Your task to perform on an android device: Search for sushi restaurants on Maps Image 0: 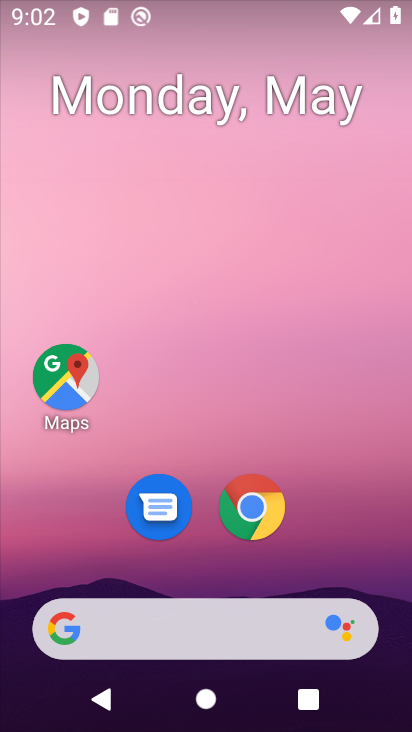
Step 0: drag from (211, 569) to (297, 2)
Your task to perform on an android device: Search for sushi restaurants on Maps Image 1: 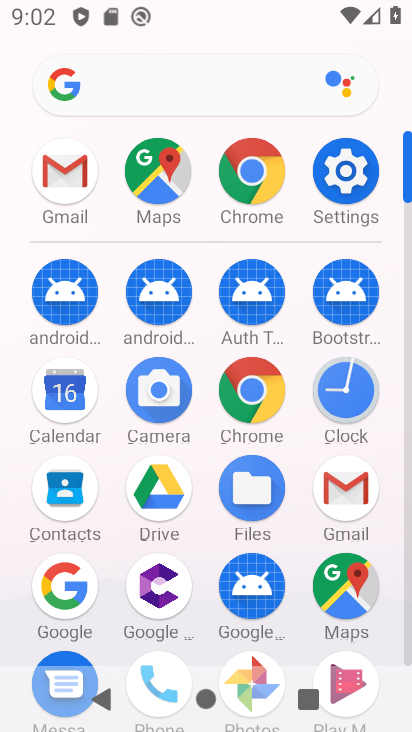
Step 1: click (342, 579)
Your task to perform on an android device: Search for sushi restaurants on Maps Image 2: 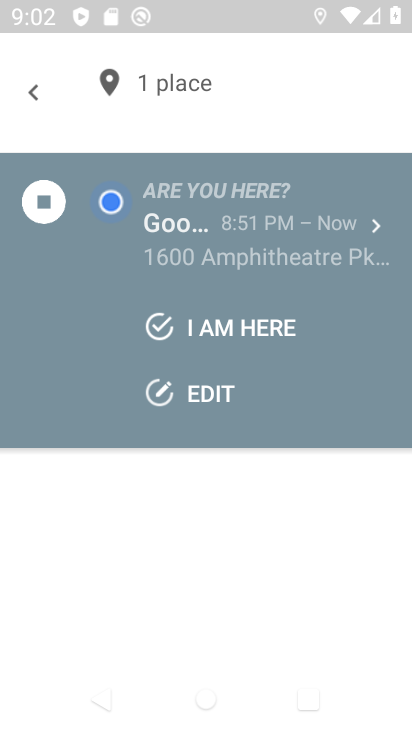
Step 2: click (35, 97)
Your task to perform on an android device: Search for sushi restaurants on Maps Image 3: 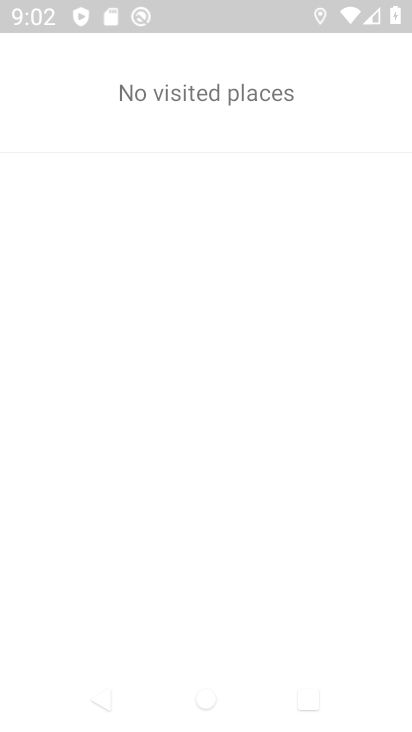
Step 3: press back button
Your task to perform on an android device: Search for sushi restaurants on Maps Image 4: 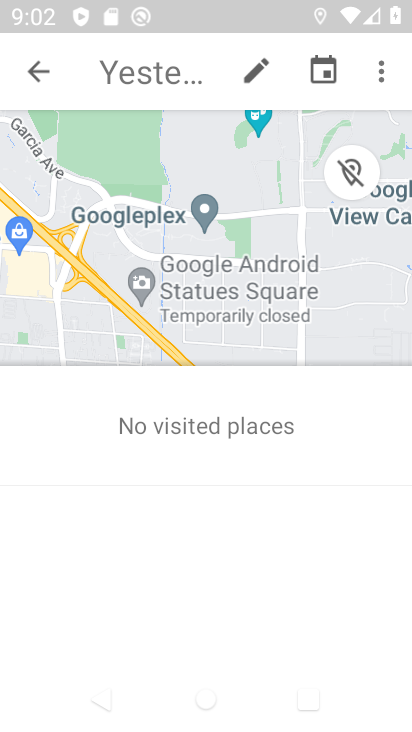
Step 4: click (53, 65)
Your task to perform on an android device: Search for sushi restaurants on Maps Image 5: 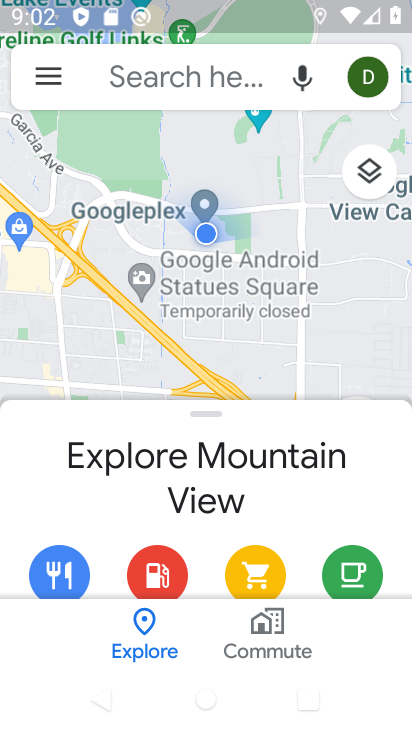
Step 5: click (168, 81)
Your task to perform on an android device: Search for sushi restaurants on Maps Image 6: 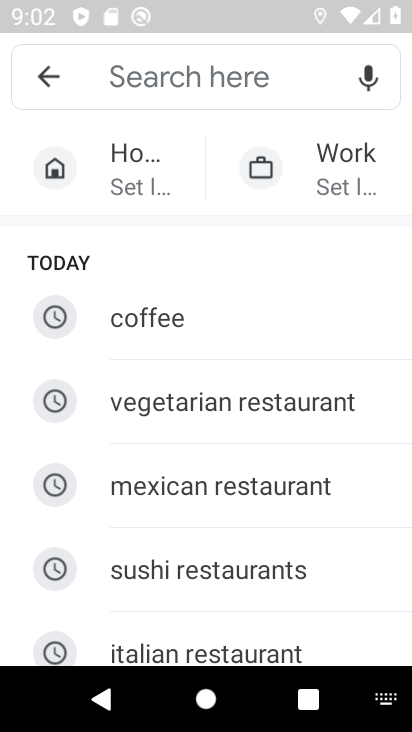
Step 6: type "Sushi restaurants"
Your task to perform on an android device: Search for sushi restaurants on Maps Image 7: 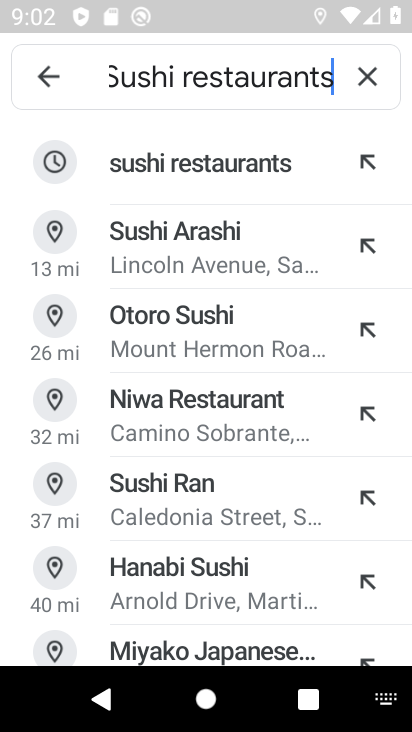
Step 7: click (201, 174)
Your task to perform on an android device: Search for sushi restaurants on Maps Image 8: 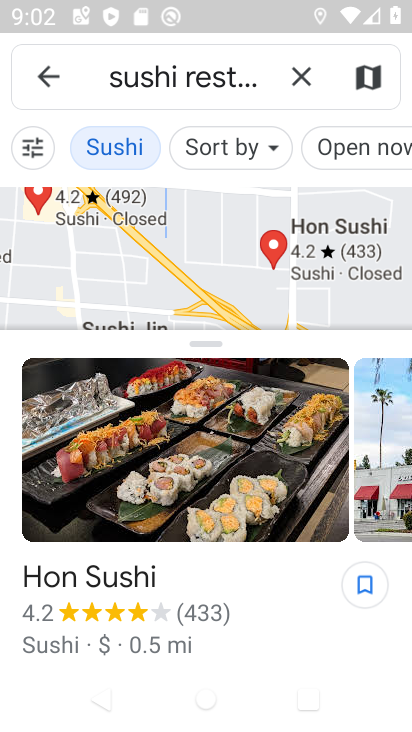
Step 8: task complete